Your task to perform on an android device: turn off sleep mode Image 0: 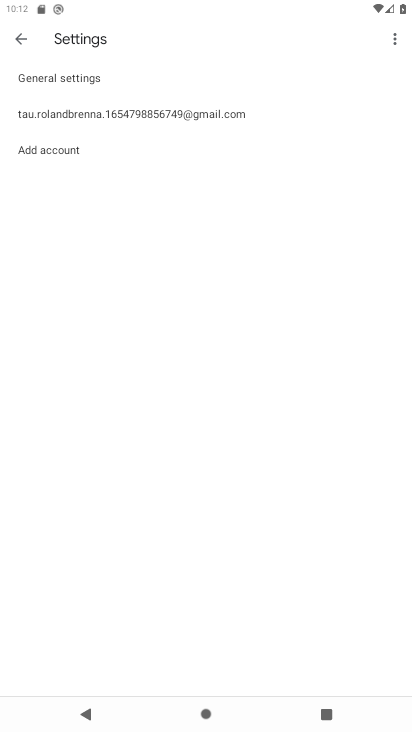
Step 0: press home button
Your task to perform on an android device: turn off sleep mode Image 1: 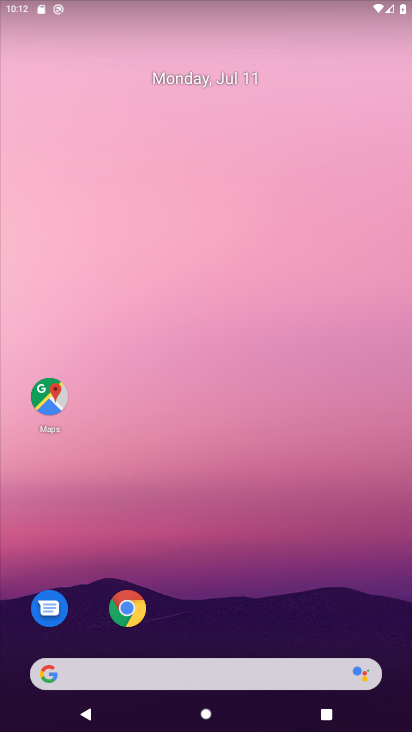
Step 1: drag from (191, 661) to (262, 159)
Your task to perform on an android device: turn off sleep mode Image 2: 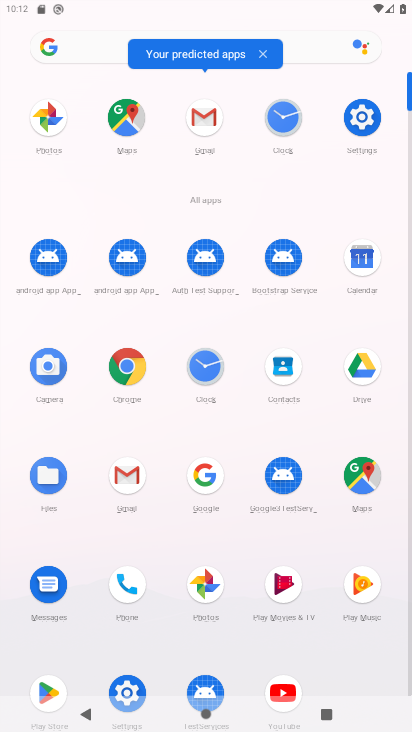
Step 2: click (126, 689)
Your task to perform on an android device: turn off sleep mode Image 3: 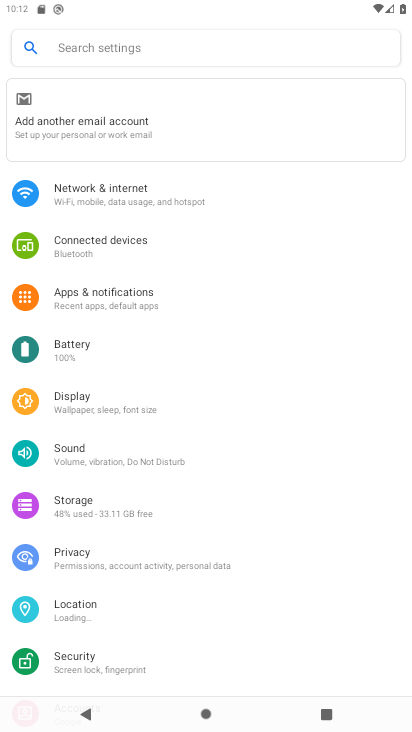
Step 3: click (89, 415)
Your task to perform on an android device: turn off sleep mode Image 4: 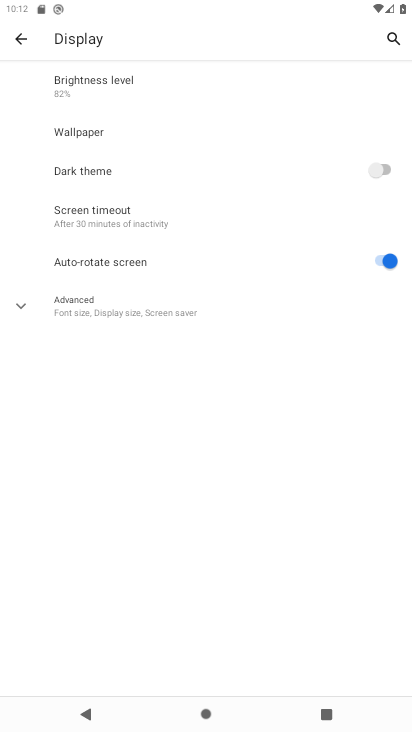
Step 4: click (117, 312)
Your task to perform on an android device: turn off sleep mode Image 5: 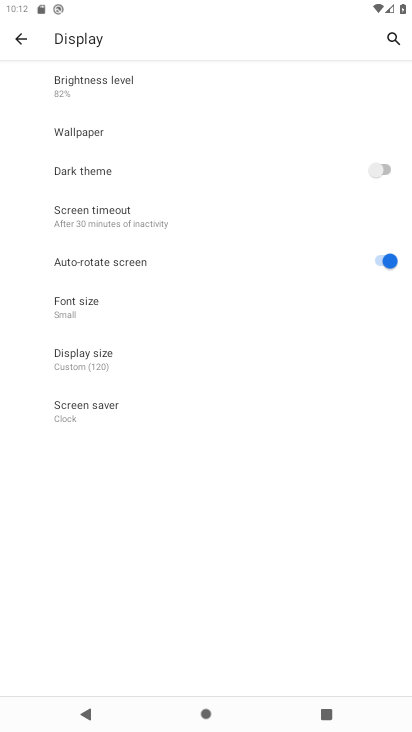
Step 5: task complete